Your task to perform on an android device: toggle airplane mode Image 0: 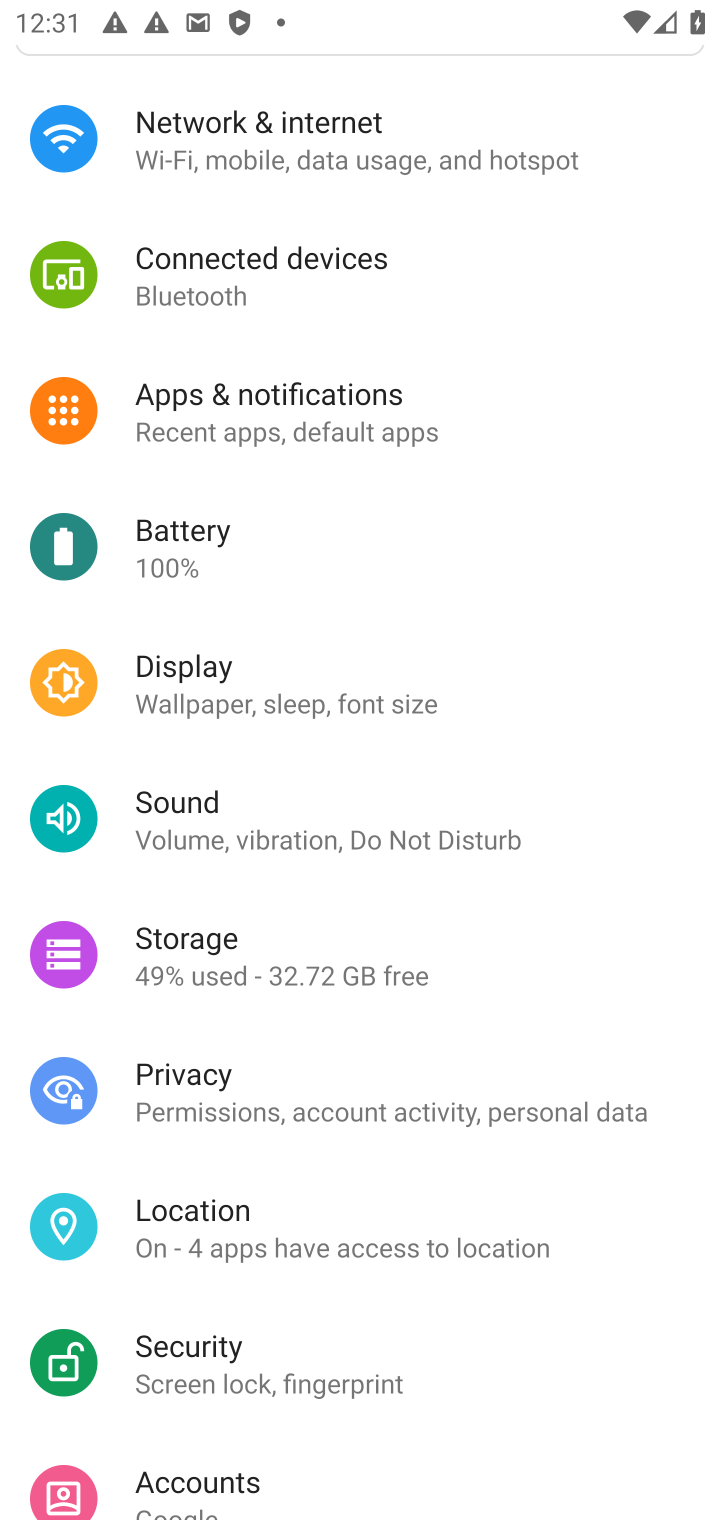
Step 0: click (384, 139)
Your task to perform on an android device: toggle airplane mode Image 1: 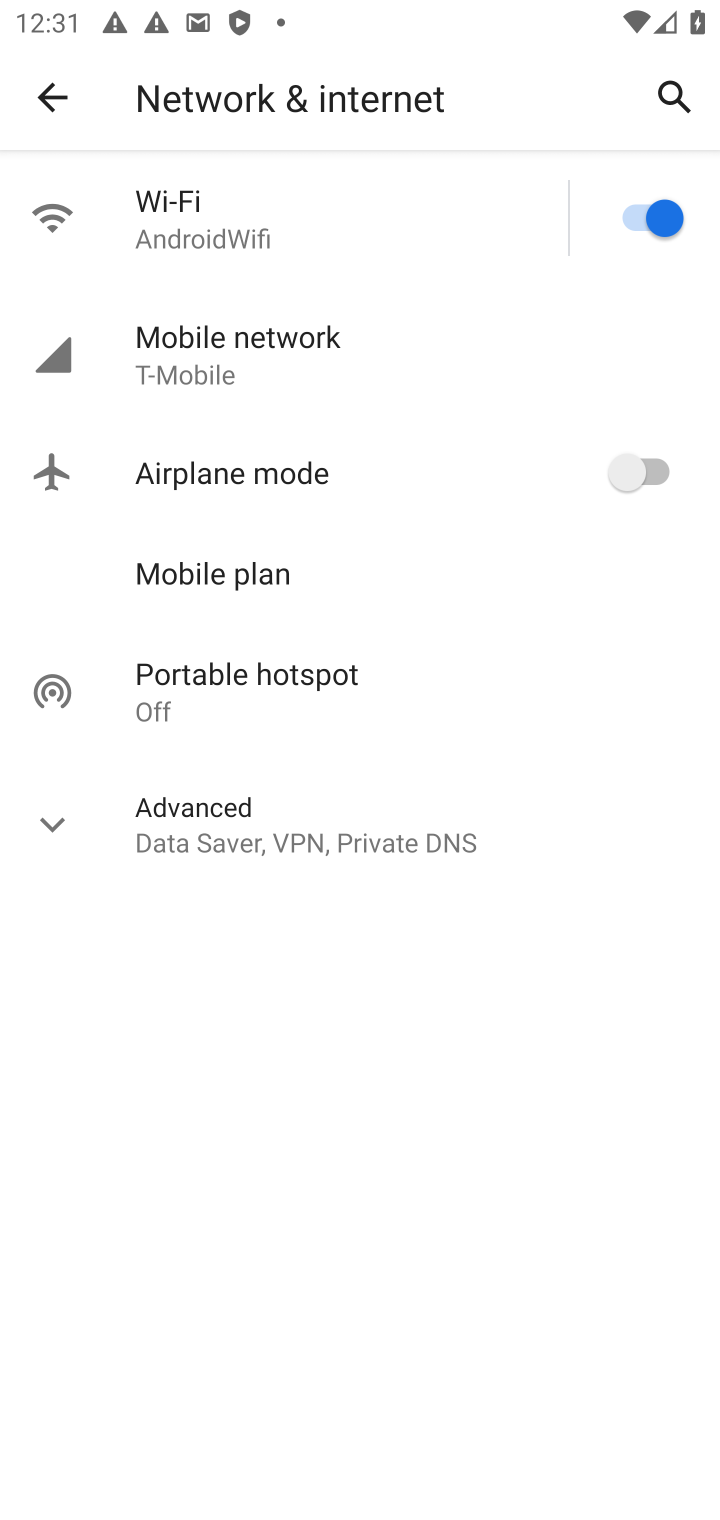
Step 1: click (630, 480)
Your task to perform on an android device: toggle airplane mode Image 2: 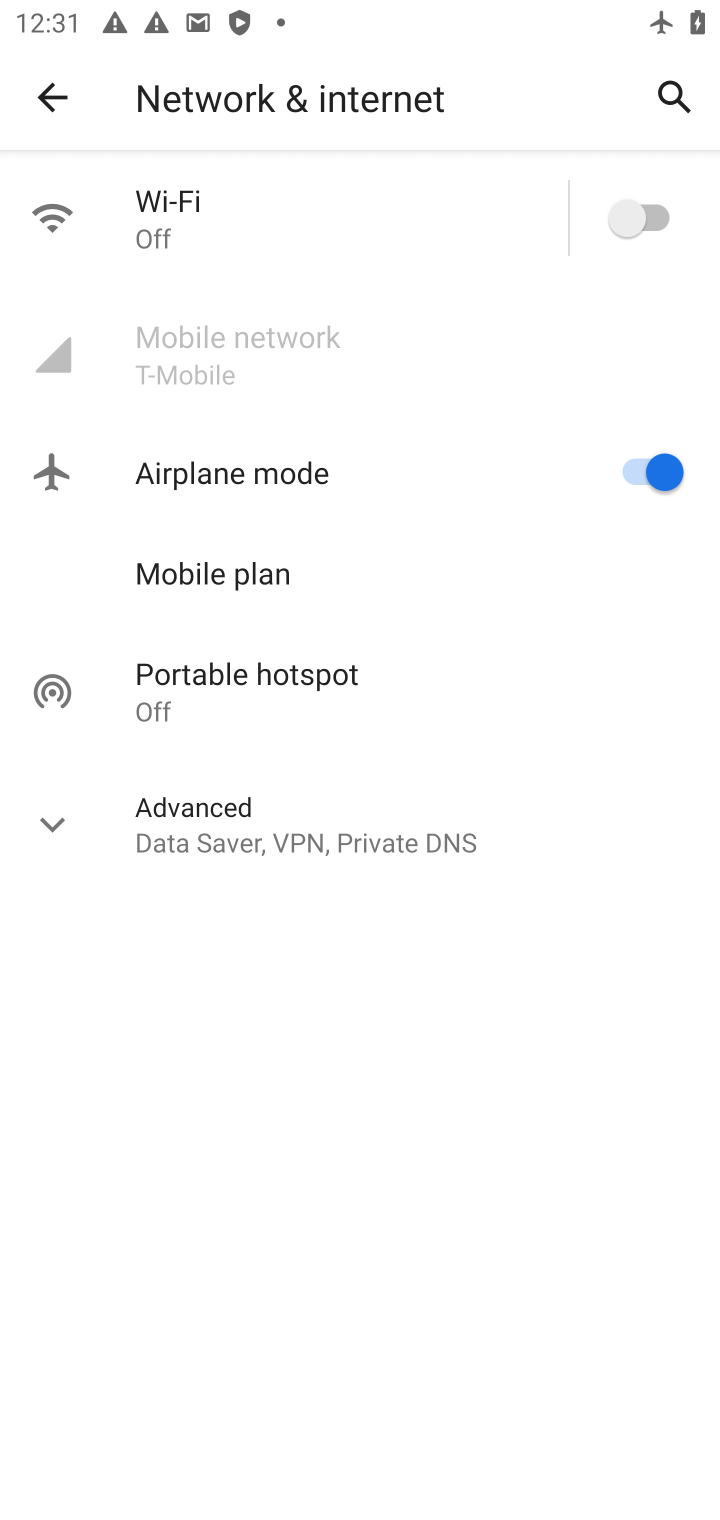
Step 2: task complete